Your task to perform on an android device: Open eBay Image 0: 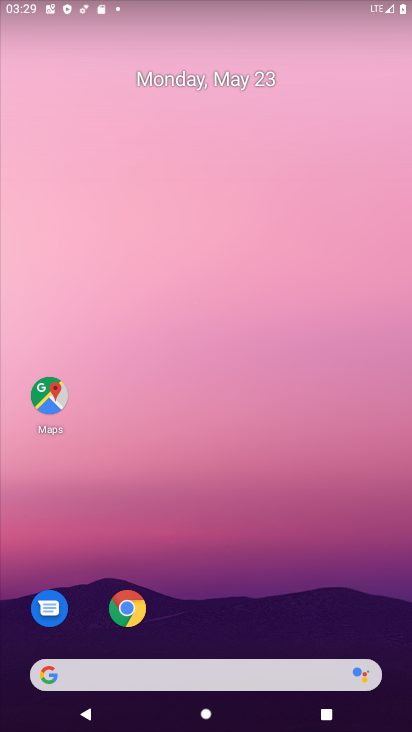
Step 0: click (127, 609)
Your task to perform on an android device: Open eBay Image 1: 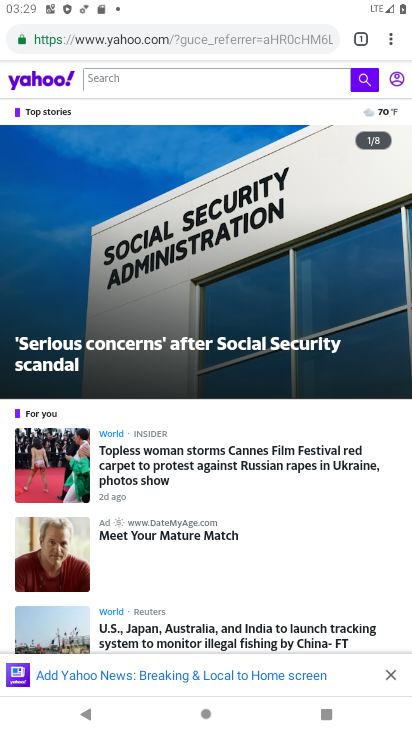
Step 1: click (248, 41)
Your task to perform on an android device: Open eBay Image 2: 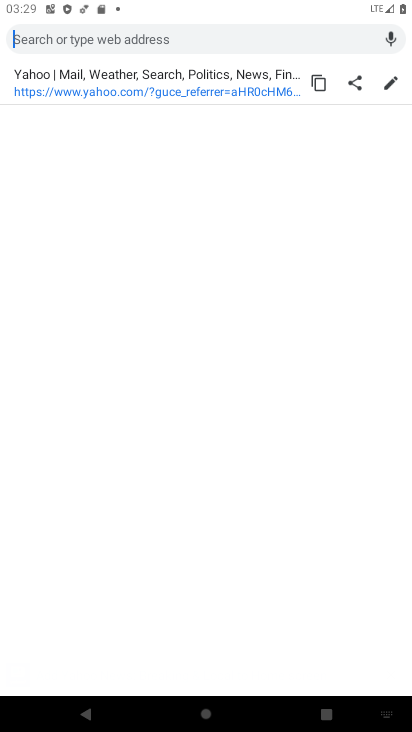
Step 2: type "eBay"
Your task to perform on an android device: Open eBay Image 3: 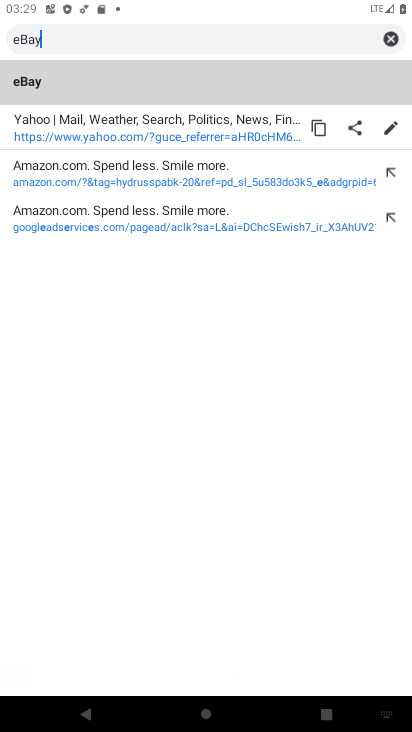
Step 3: type ""
Your task to perform on an android device: Open eBay Image 4: 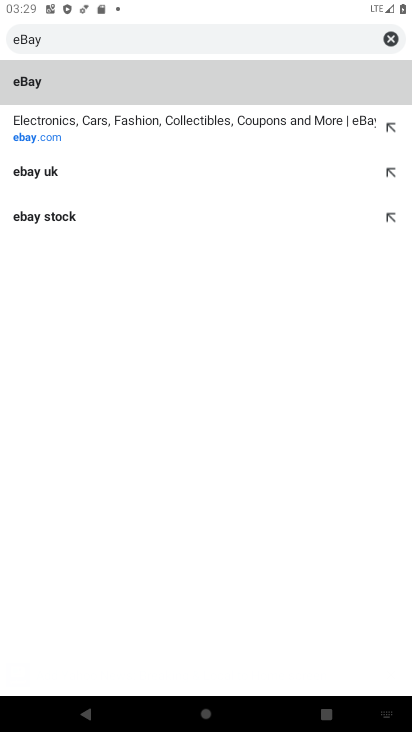
Step 4: click (72, 79)
Your task to perform on an android device: Open eBay Image 5: 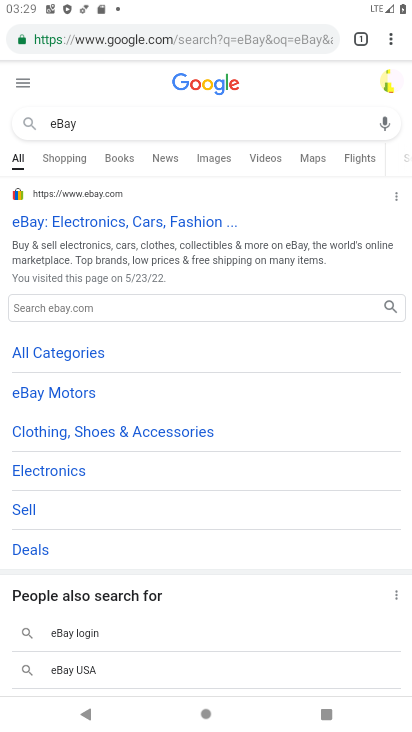
Step 5: click (91, 218)
Your task to perform on an android device: Open eBay Image 6: 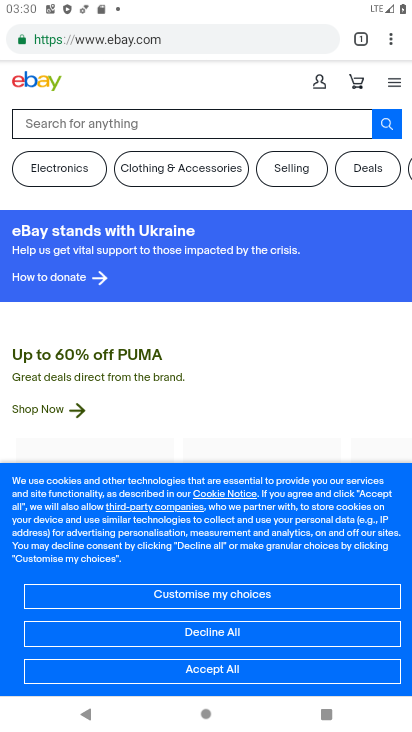
Step 6: task complete